Your task to perform on an android device: Go to Yahoo.com Image 0: 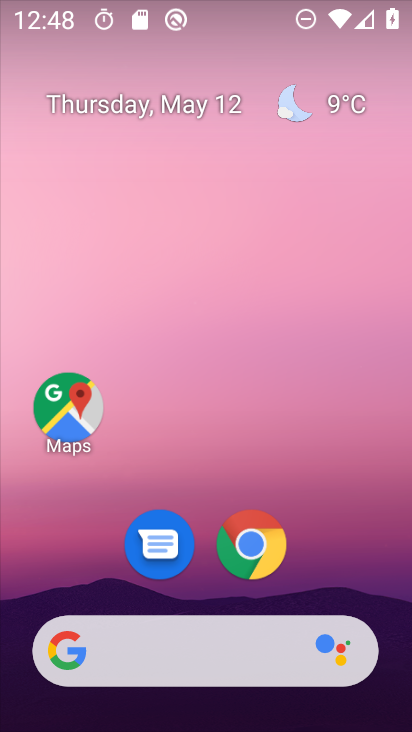
Step 0: click (247, 536)
Your task to perform on an android device: Go to Yahoo.com Image 1: 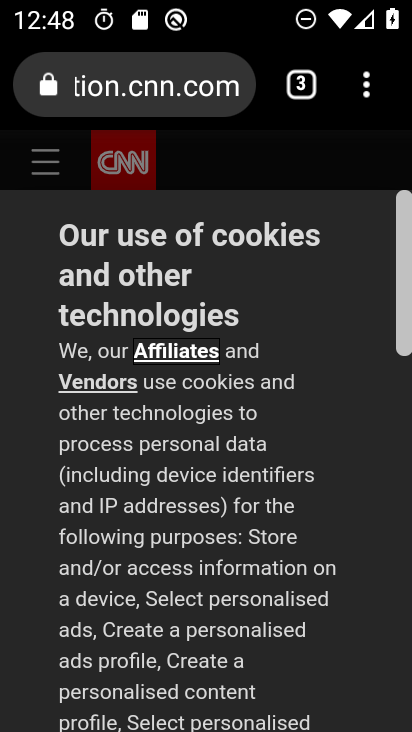
Step 1: click (369, 98)
Your task to perform on an android device: Go to Yahoo.com Image 2: 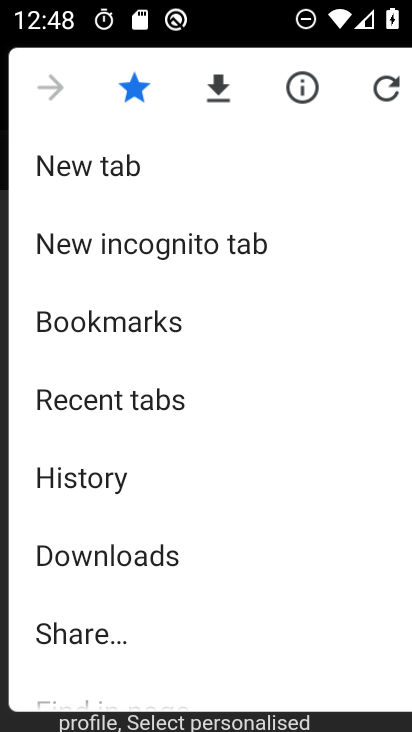
Step 2: click (124, 162)
Your task to perform on an android device: Go to Yahoo.com Image 3: 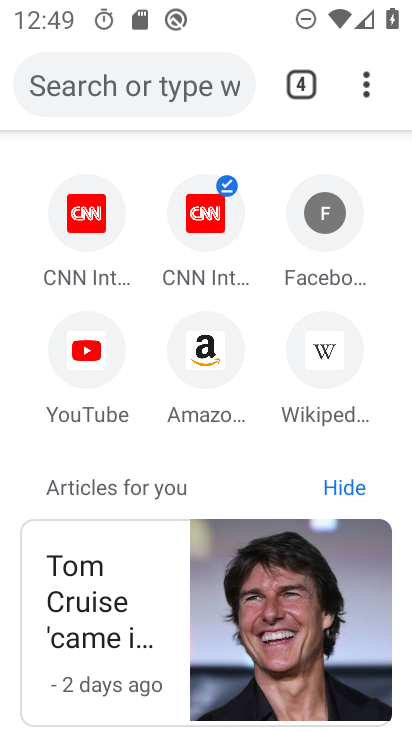
Step 3: drag from (31, 226) to (17, 426)
Your task to perform on an android device: Go to Yahoo.com Image 4: 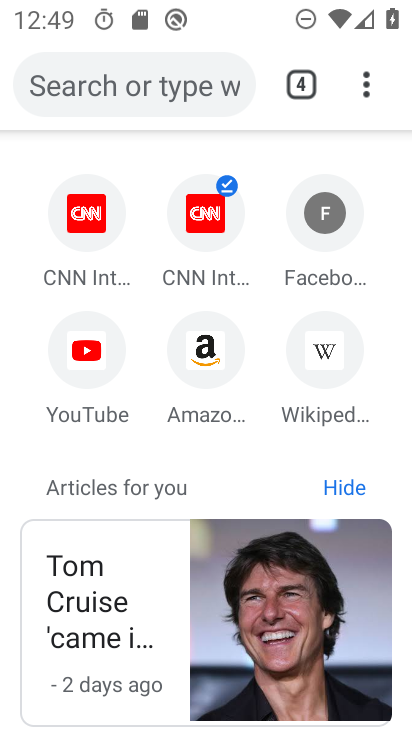
Step 4: drag from (136, 155) to (149, 436)
Your task to perform on an android device: Go to Yahoo.com Image 5: 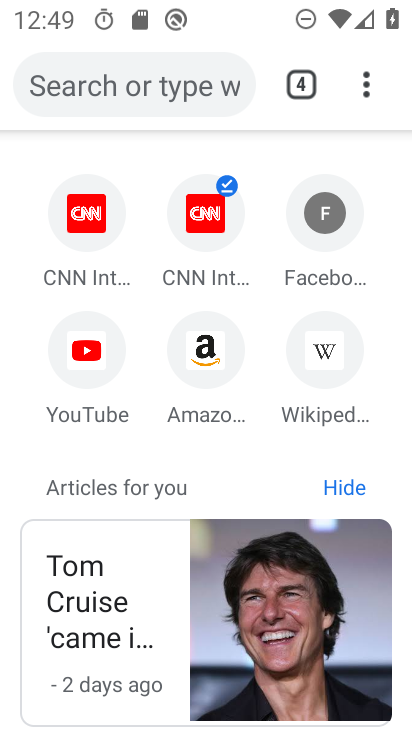
Step 5: click (151, 82)
Your task to perform on an android device: Go to Yahoo.com Image 6: 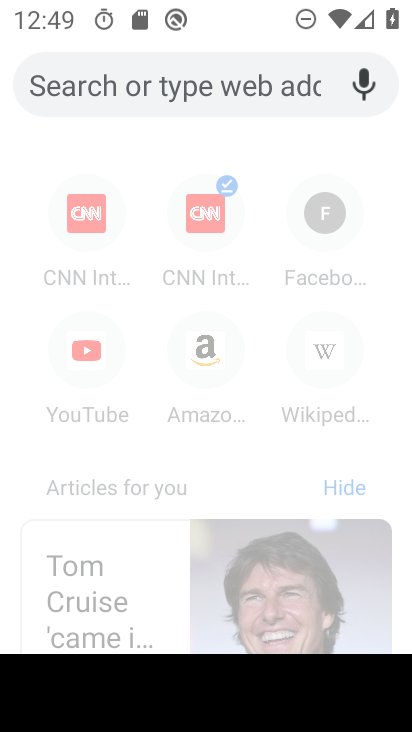
Step 6: type "Yahoo.com"
Your task to perform on an android device: Go to Yahoo.com Image 7: 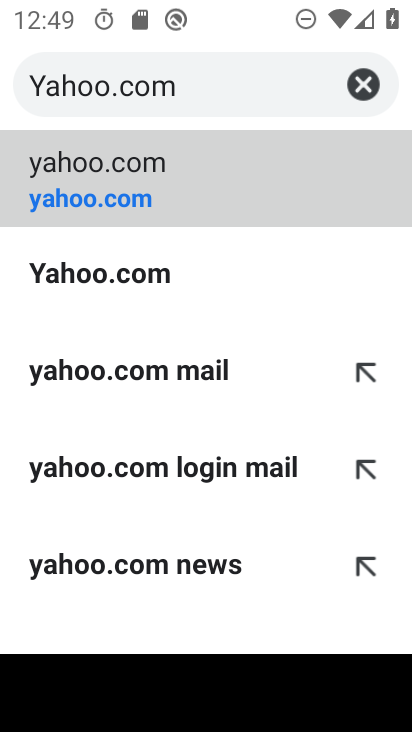
Step 7: click (109, 176)
Your task to perform on an android device: Go to Yahoo.com Image 8: 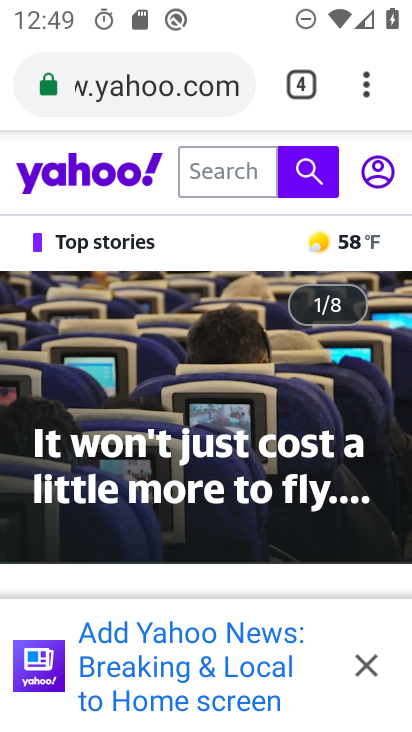
Step 8: task complete